Your task to perform on an android device: Open calendar and show me the first week of next month Image 0: 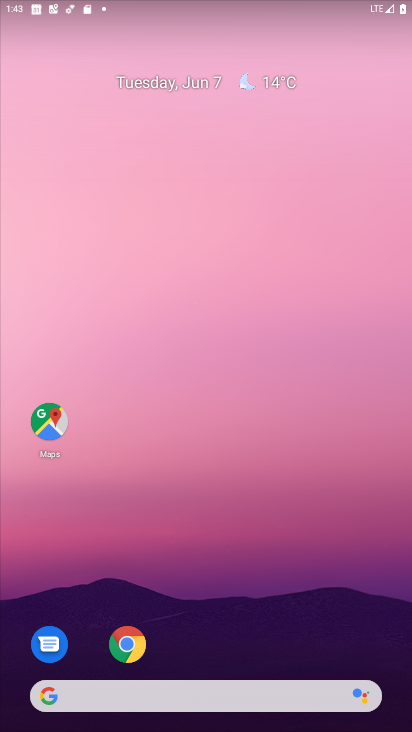
Step 0: drag from (225, 639) to (206, 34)
Your task to perform on an android device: Open calendar and show me the first week of next month Image 1: 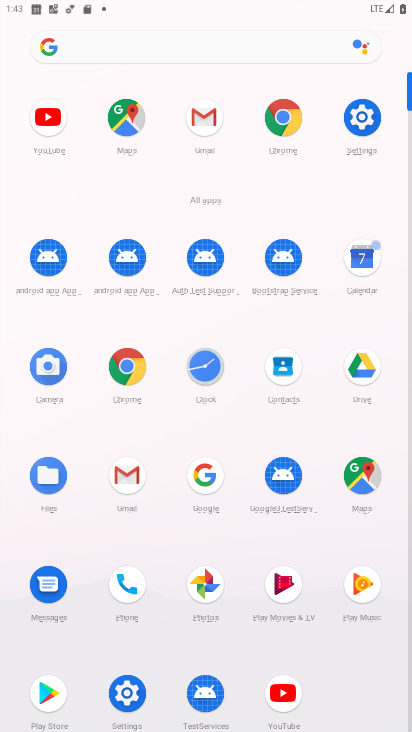
Step 1: click (367, 261)
Your task to perform on an android device: Open calendar and show me the first week of next month Image 2: 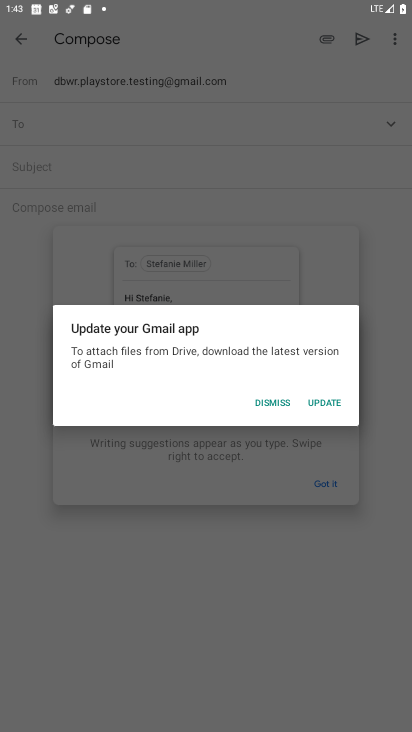
Step 2: press home button
Your task to perform on an android device: Open calendar and show me the first week of next month Image 3: 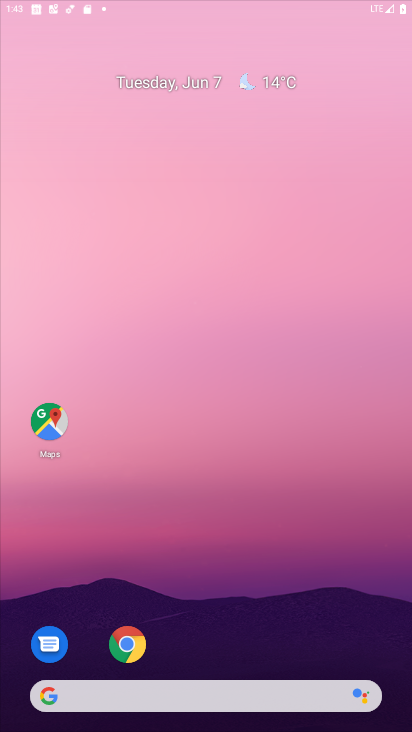
Step 3: drag from (258, 487) to (243, 31)
Your task to perform on an android device: Open calendar and show me the first week of next month Image 4: 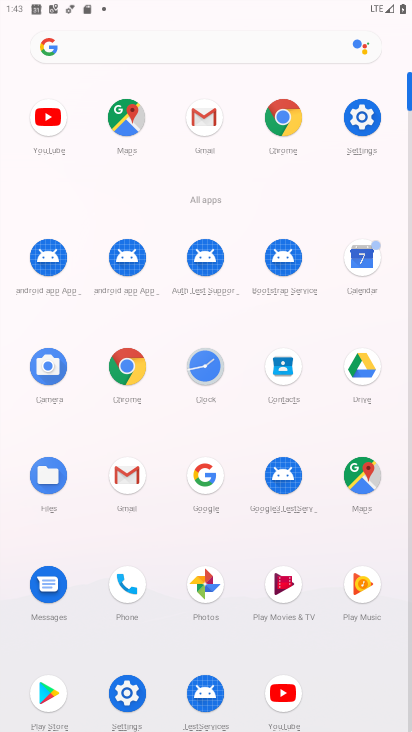
Step 4: click (367, 258)
Your task to perform on an android device: Open calendar and show me the first week of next month Image 5: 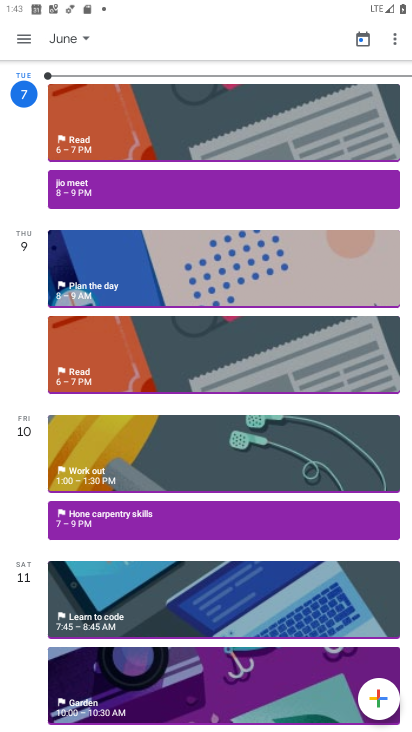
Step 5: click (79, 39)
Your task to perform on an android device: Open calendar and show me the first week of next month Image 6: 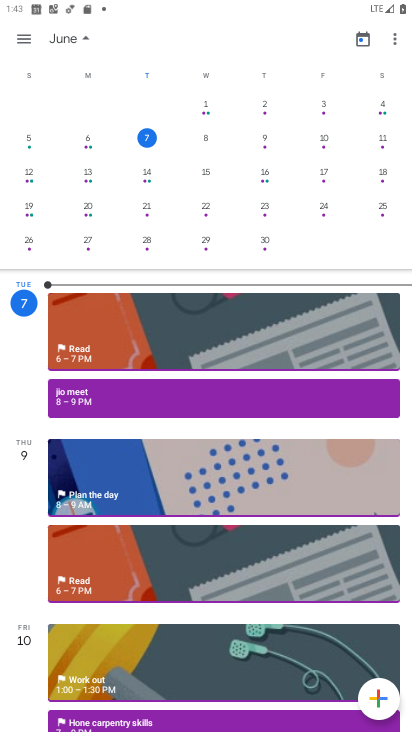
Step 6: task complete